Your task to perform on an android device: turn on translation in the chrome app Image 0: 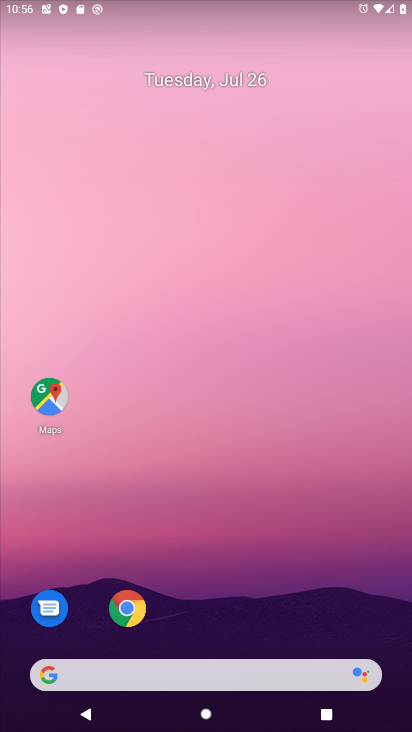
Step 0: click (129, 613)
Your task to perform on an android device: turn on translation in the chrome app Image 1: 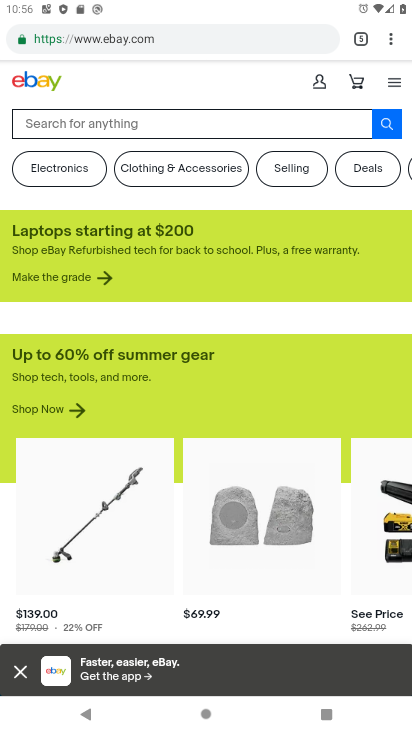
Step 1: click (392, 45)
Your task to perform on an android device: turn on translation in the chrome app Image 2: 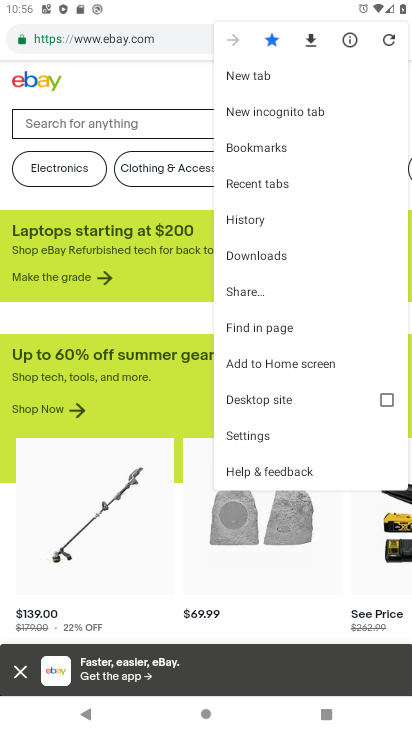
Step 2: click (243, 434)
Your task to perform on an android device: turn on translation in the chrome app Image 3: 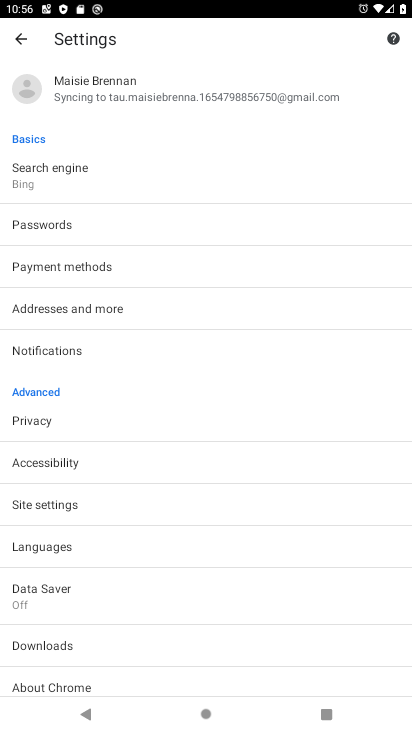
Step 3: click (41, 543)
Your task to perform on an android device: turn on translation in the chrome app Image 4: 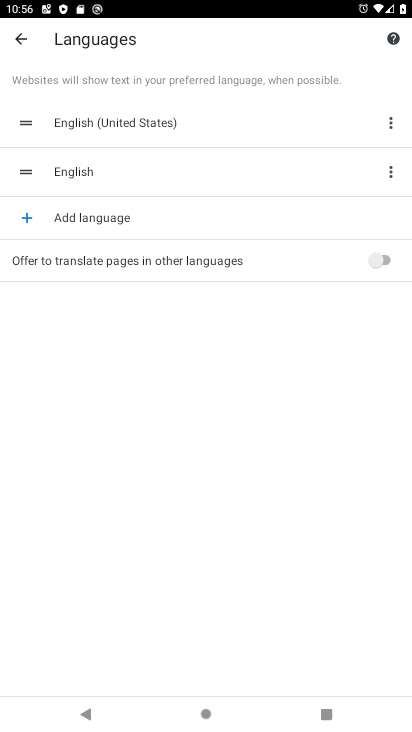
Step 4: click (382, 253)
Your task to perform on an android device: turn on translation in the chrome app Image 5: 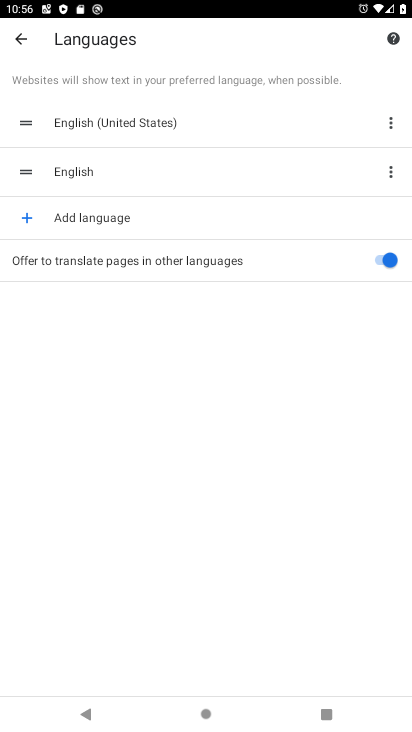
Step 5: task complete